Your task to perform on an android device: read, delete, or share a saved page in the chrome app Image 0: 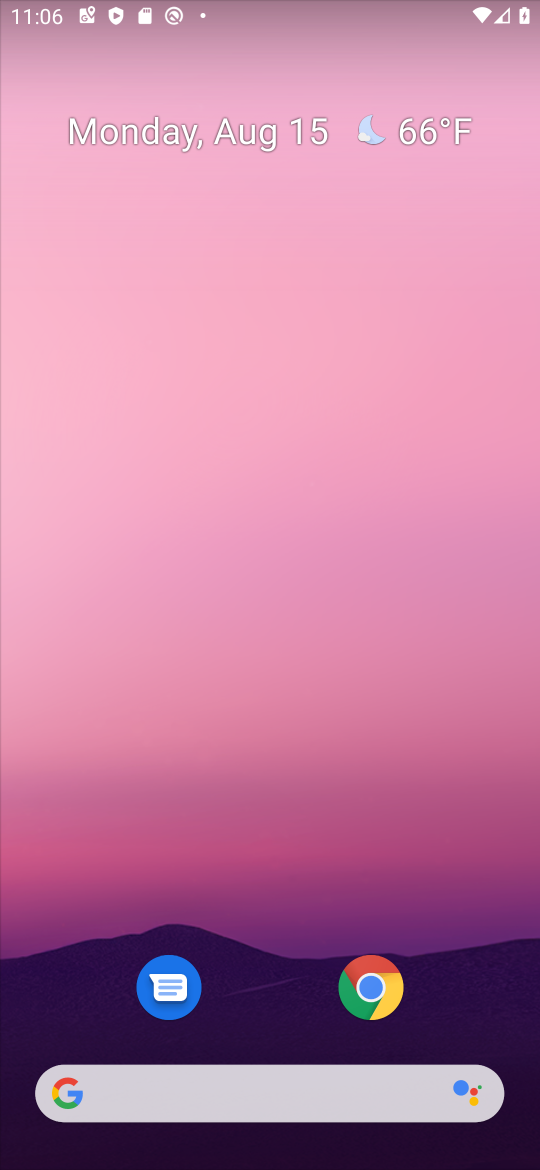
Step 0: click (374, 1000)
Your task to perform on an android device: read, delete, or share a saved page in the chrome app Image 1: 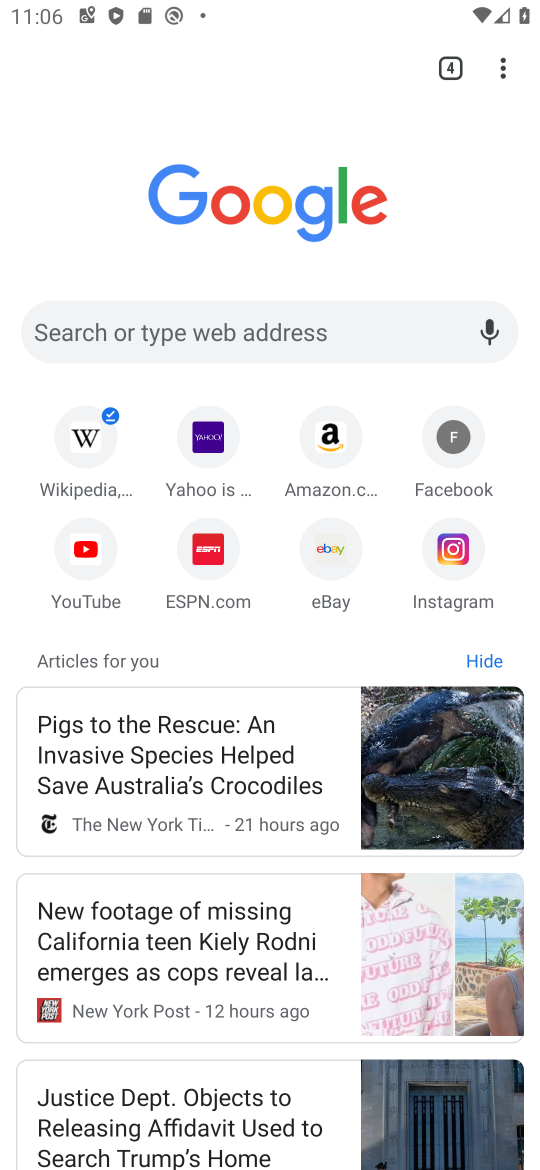
Step 1: task complete